Your task to perform on an android device: uninstall "Move to iOS" Image 0: 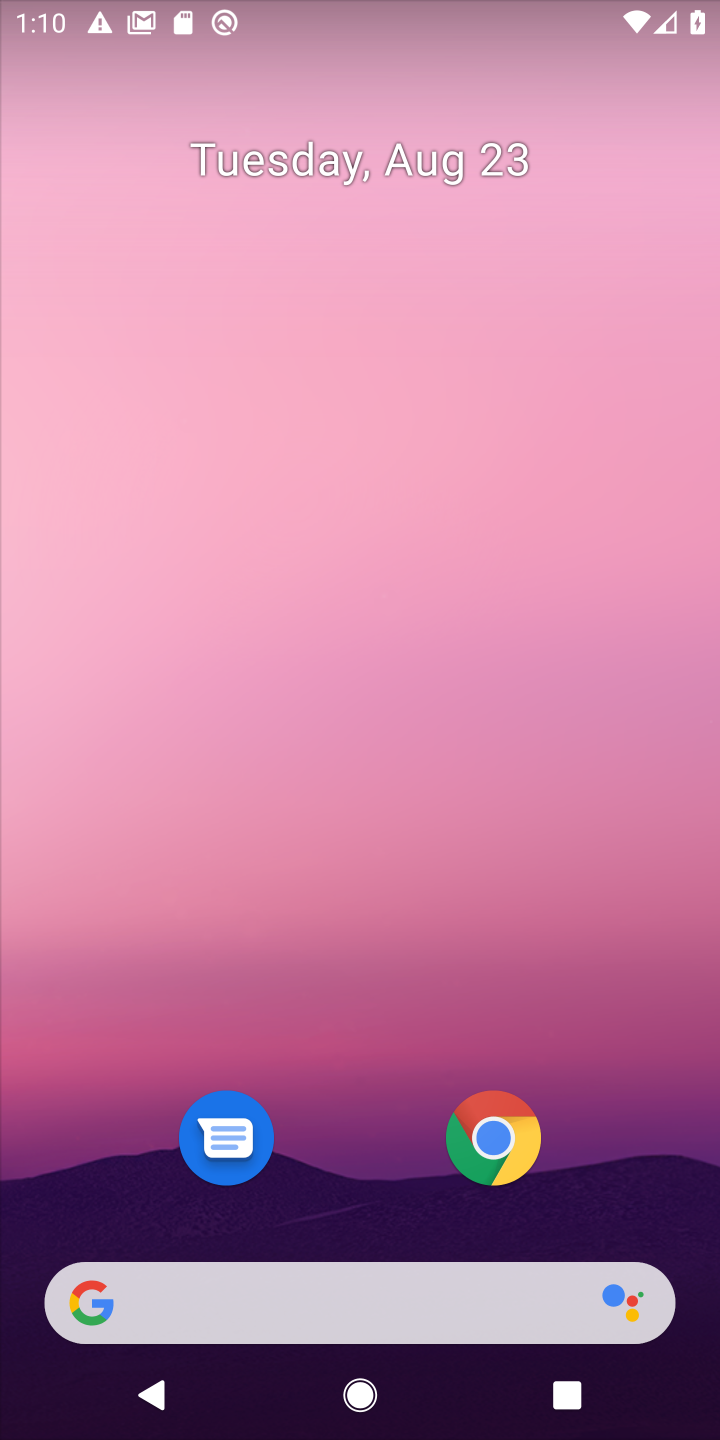
Step 0: drag from (324, 1302) to (402, 34)
Your task to perform on an android device: uninstall "Move to iOS" Image 1: 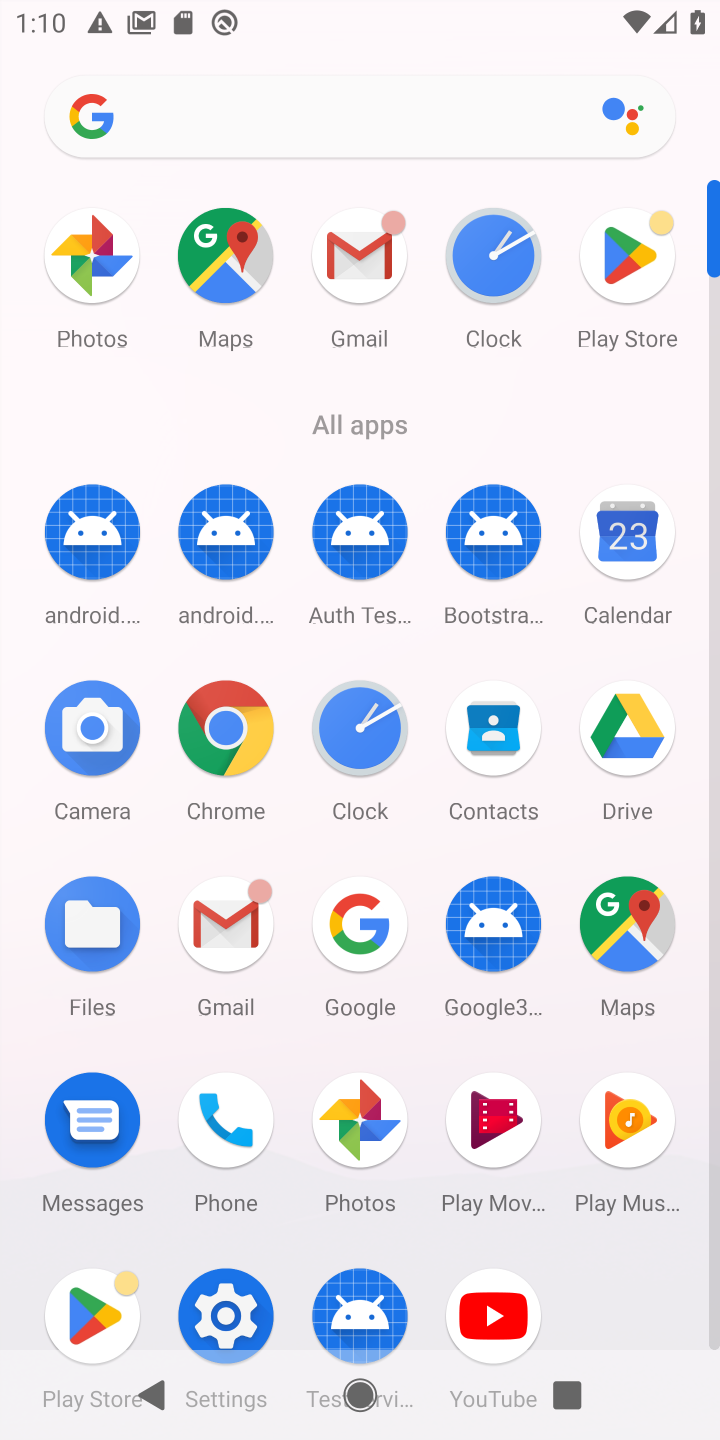
Step 1: click (650, 243)
Your task to perform on an android device: uninstall "Move to iOS" Image 2: 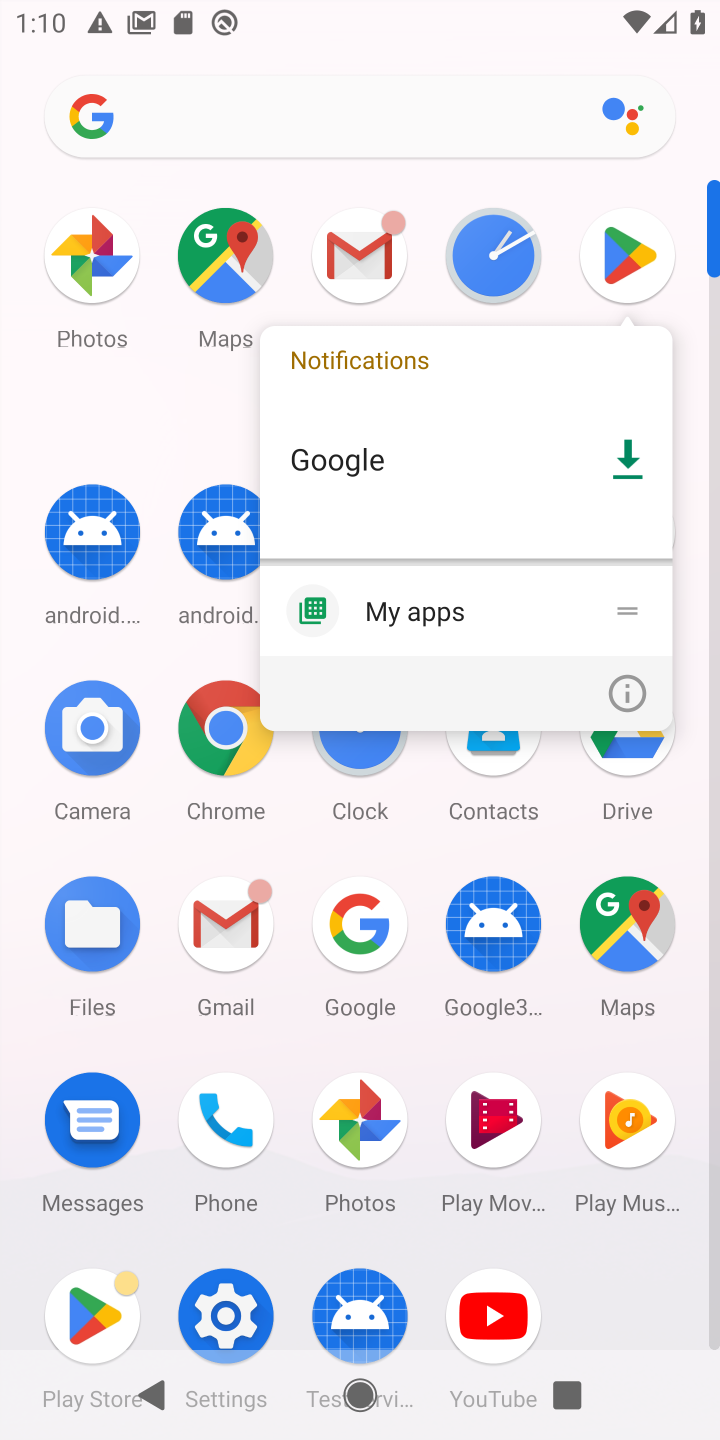
Step 2: click (620, 692)
Your task to perform on an android device: uninstall "Move to iOS" Image 3: 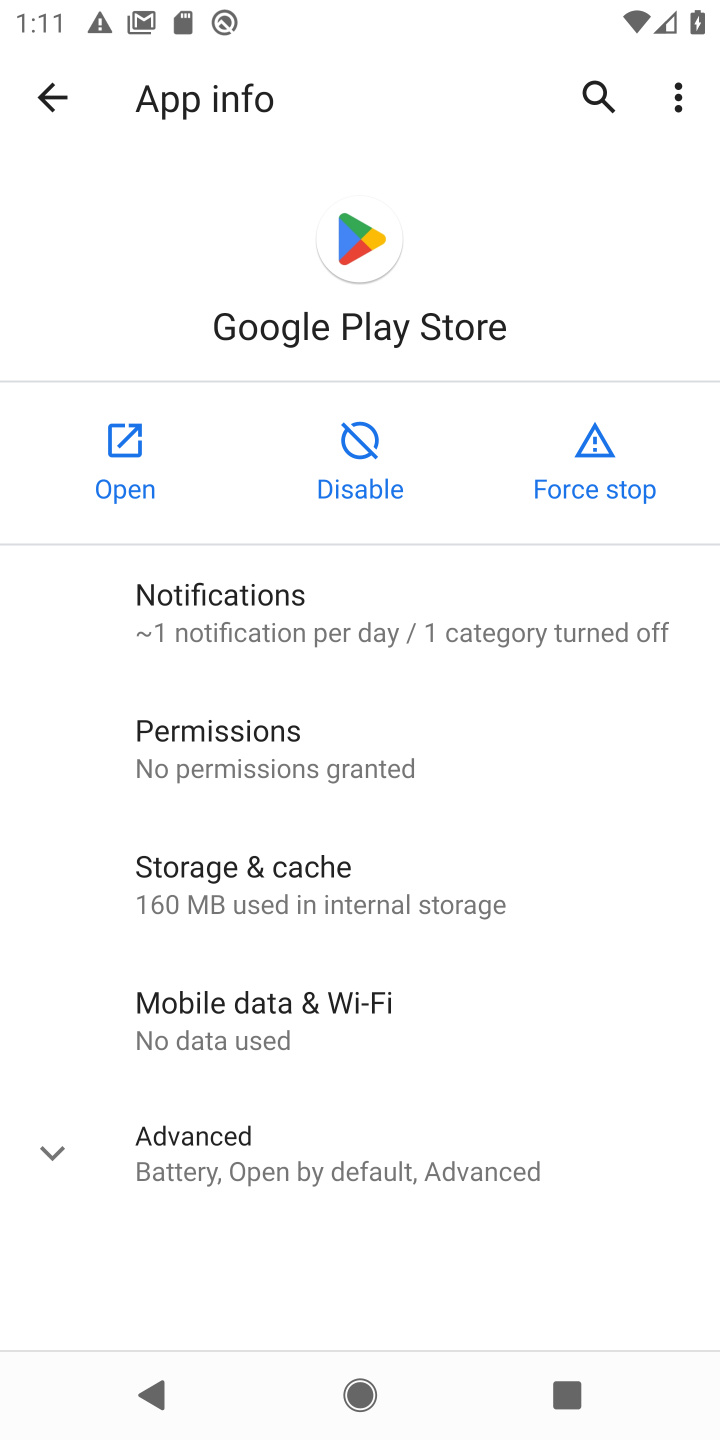
Step 3: press back button
Your task to perform on an android device: uninstall "Move to iOS" Image 4: 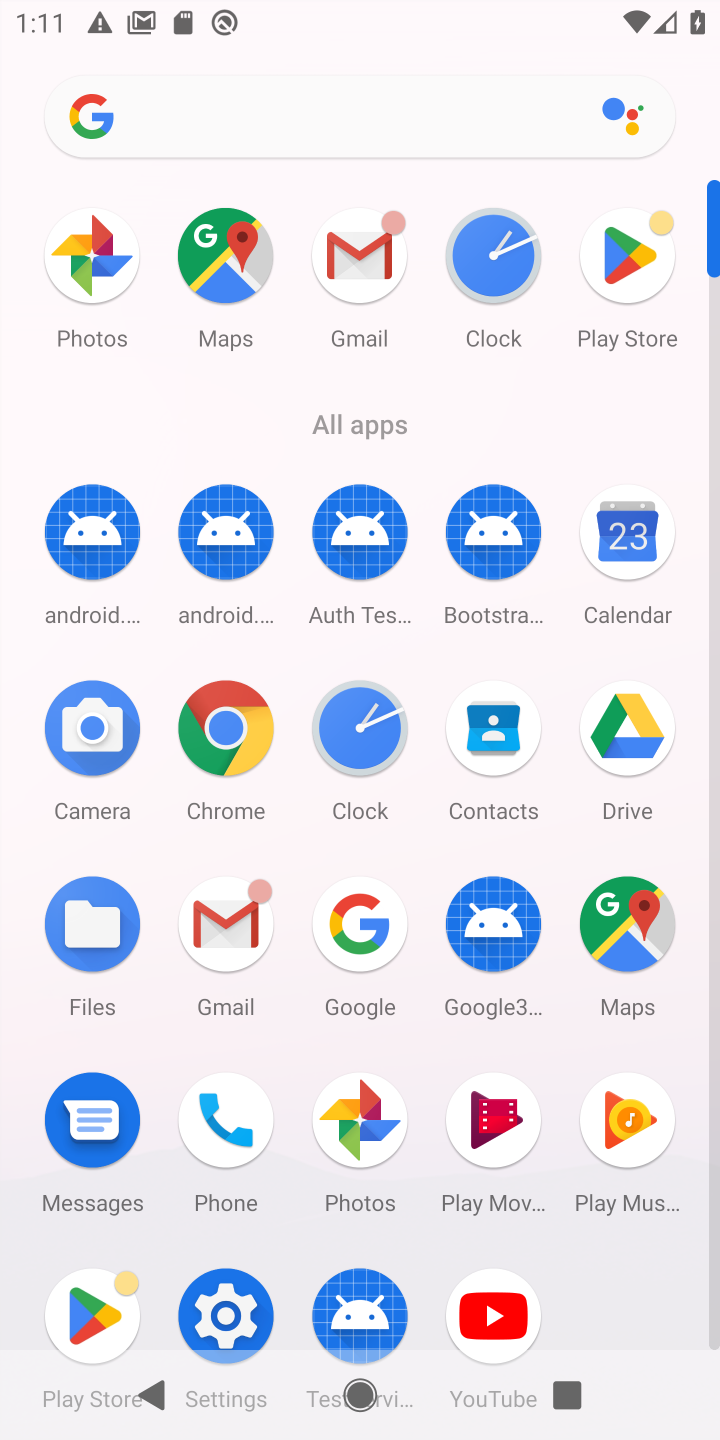
Step 4: click (643, 270)
Your task to perform on an android device: uninstall "Move to iOS" Image 5: 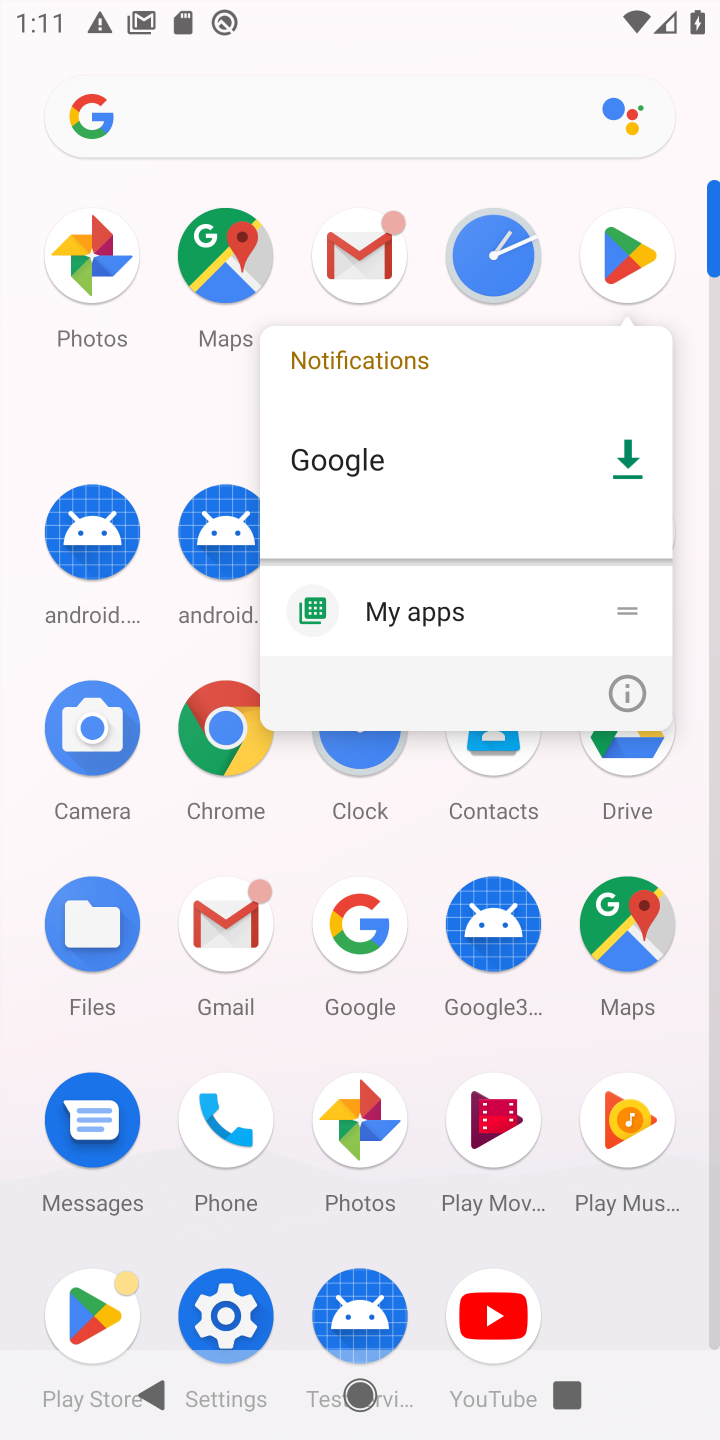
Step 5: click (643, 268)
Your task to perform on an android device: uninstall "Move to iOS" Image 6: 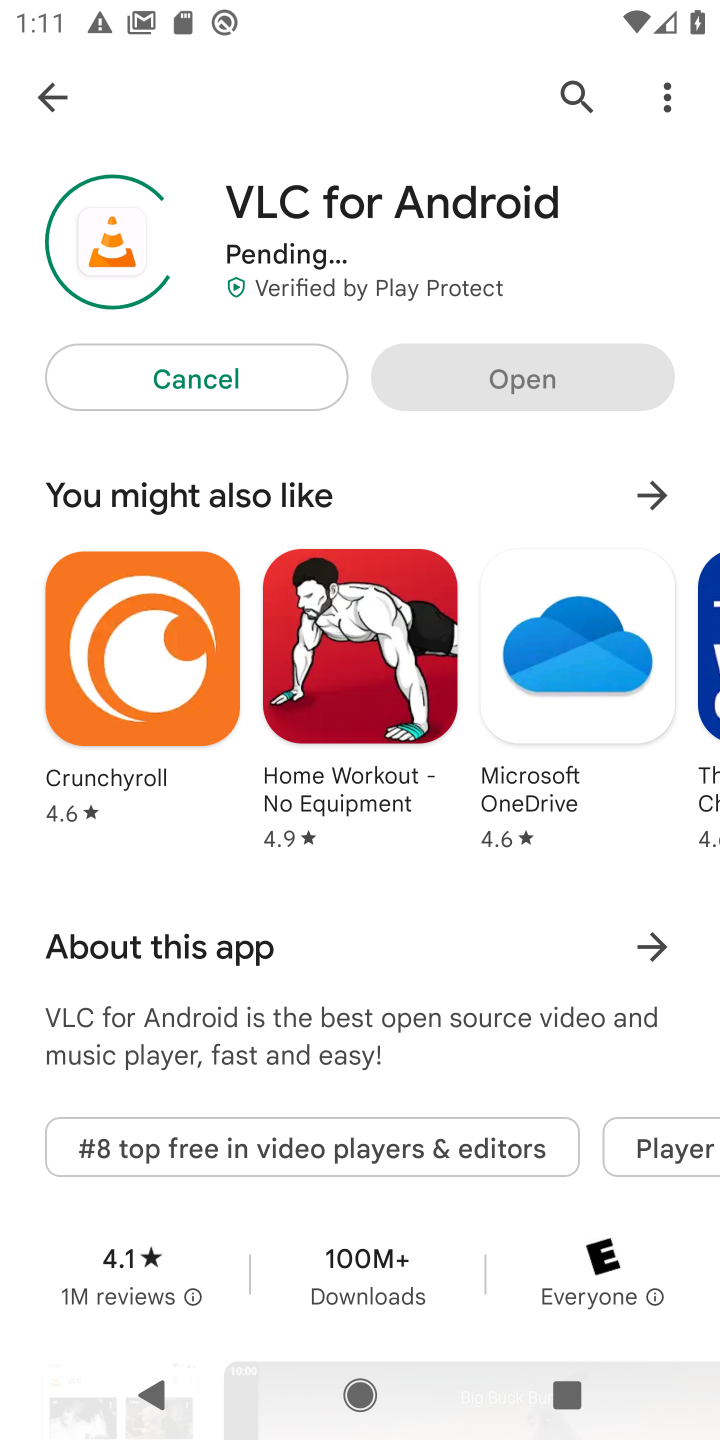
Step 6: press back button
Your task to perform on an android device: uninstall "Move to iOS" Image 7: 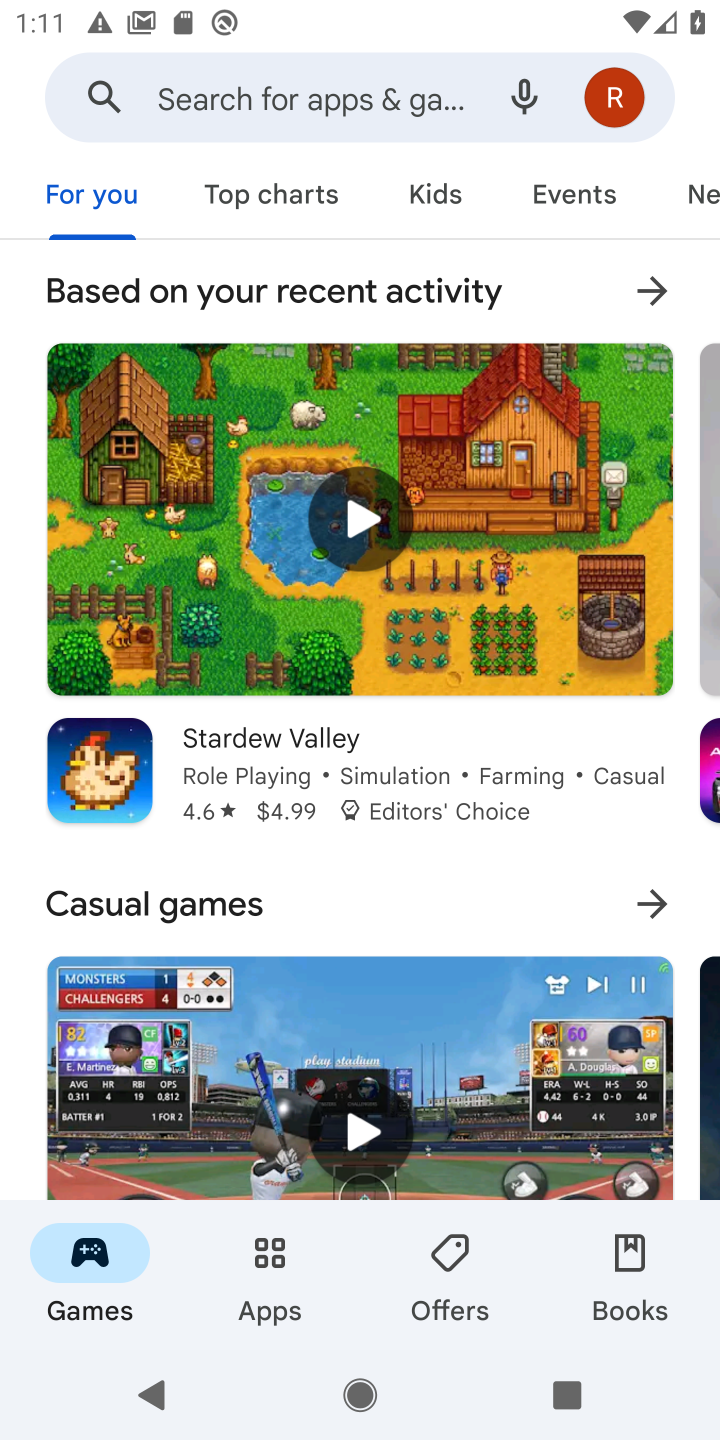
Step 7: click (248, 1269)
Your task to perform on an android device: uninstall "Move to iOS" Image 8: 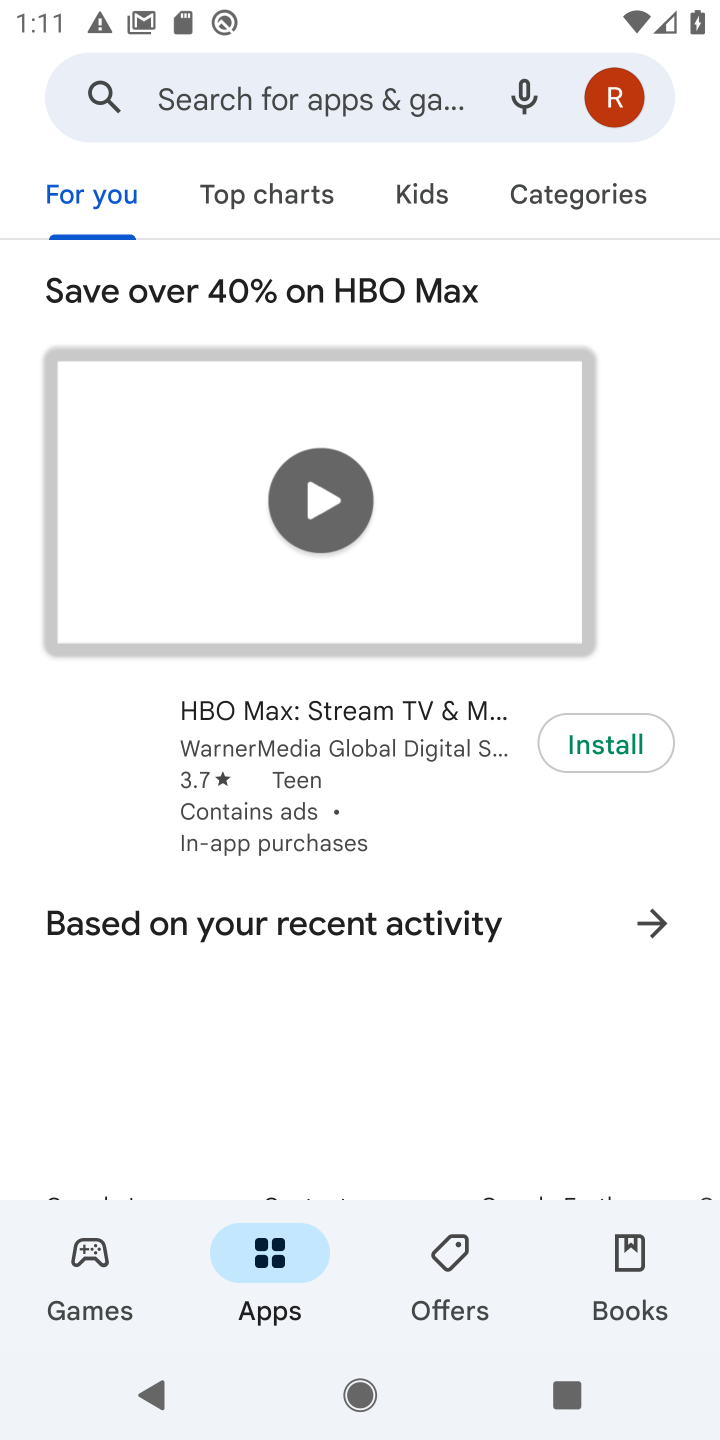
Step 8: click (376, 101)
Your task to perform on an android device: uninstall "Move to iOS" Image 9: 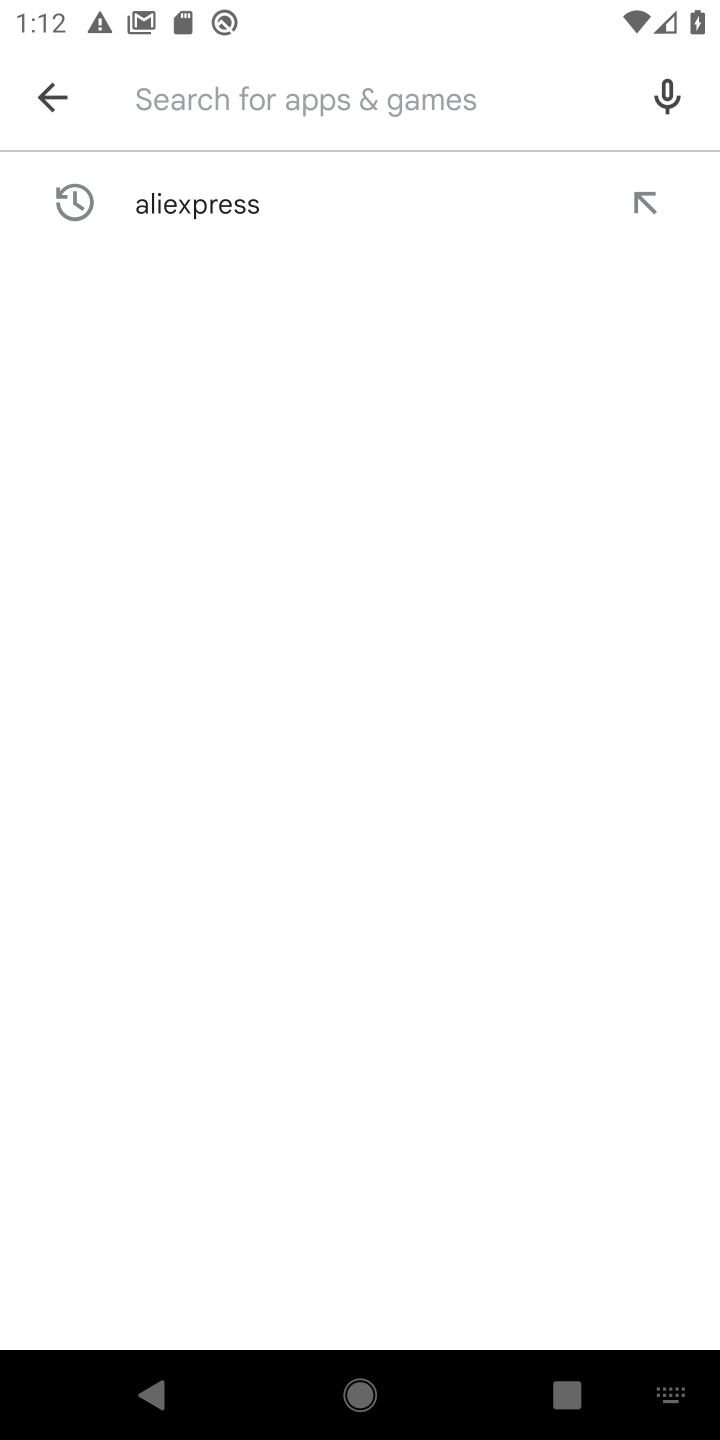
Step 9: type "Move to iOS"
Your task to perform on an android device: uninstall "Move to iOS" Image 10: 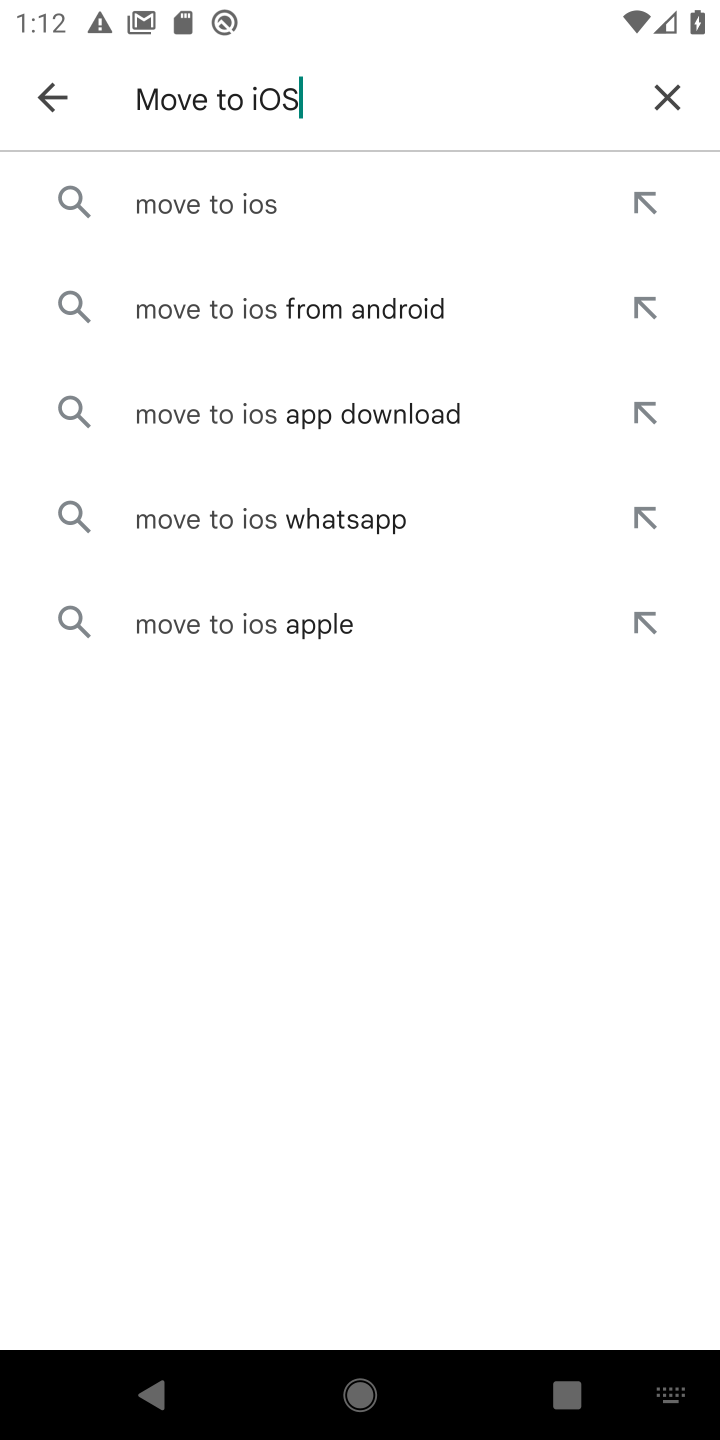
Step 10: click (266, 211)
Your task to perform on an android device: uninstall "Move to iOS" Image 11: 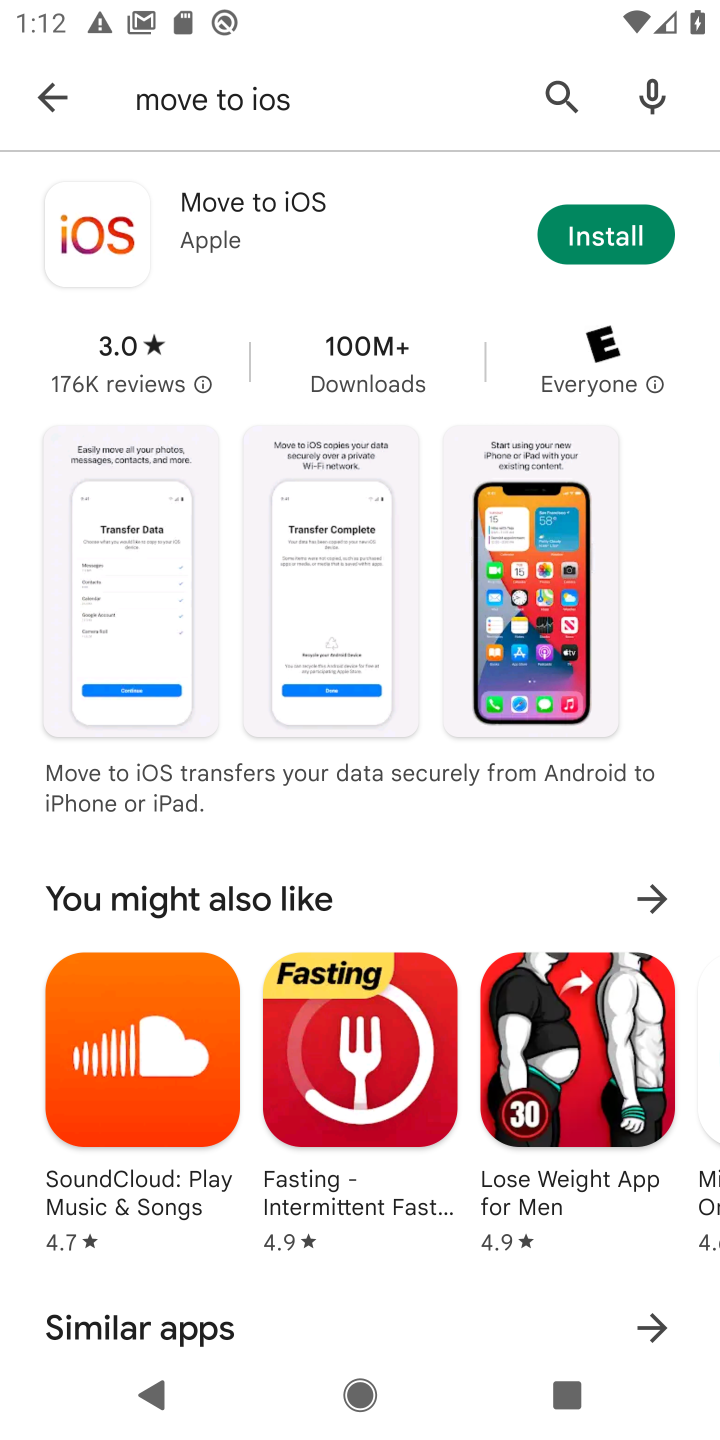
Step 11: click (614, 247)
Your task to perform on an android device: uninstall "Move to iOS" Image 12: 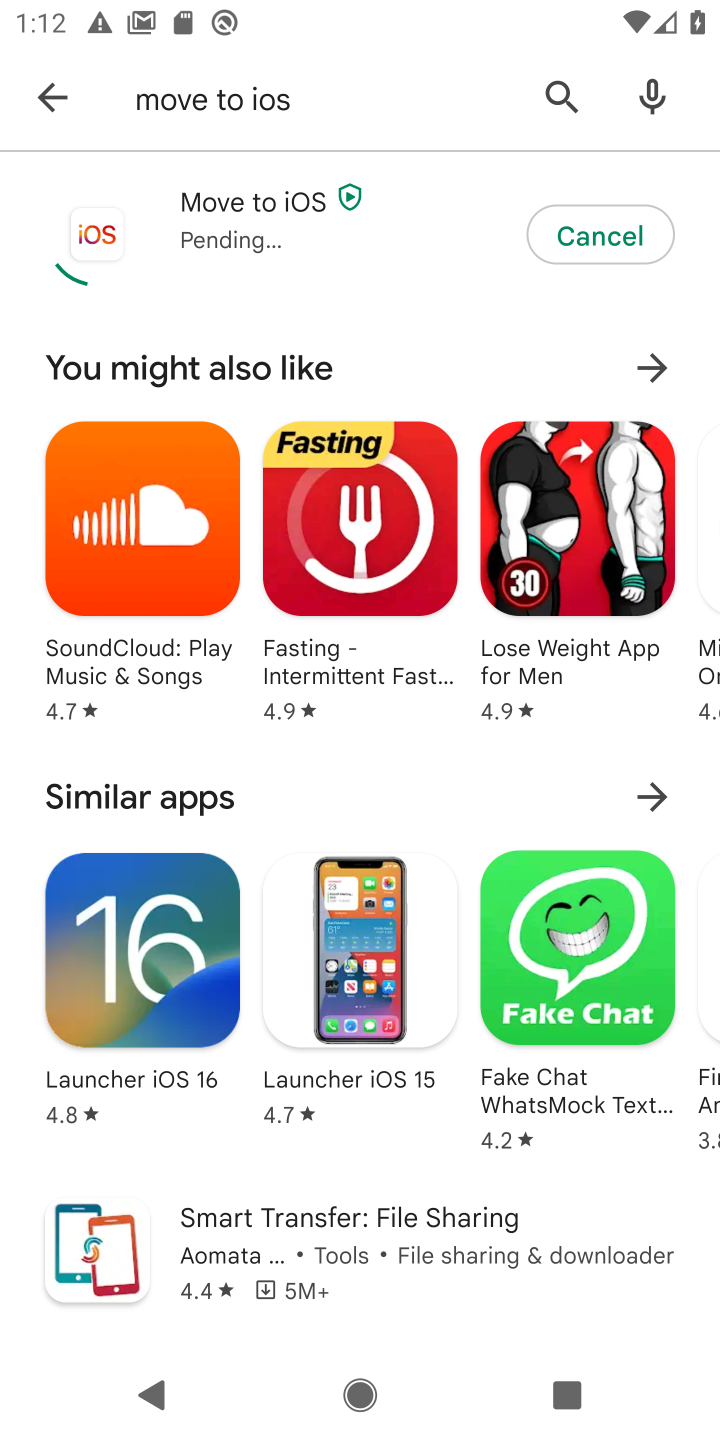
Step 12: click (45, 92)
Your task to perform on an android device: uninstall "Move to iOS" Image 13: 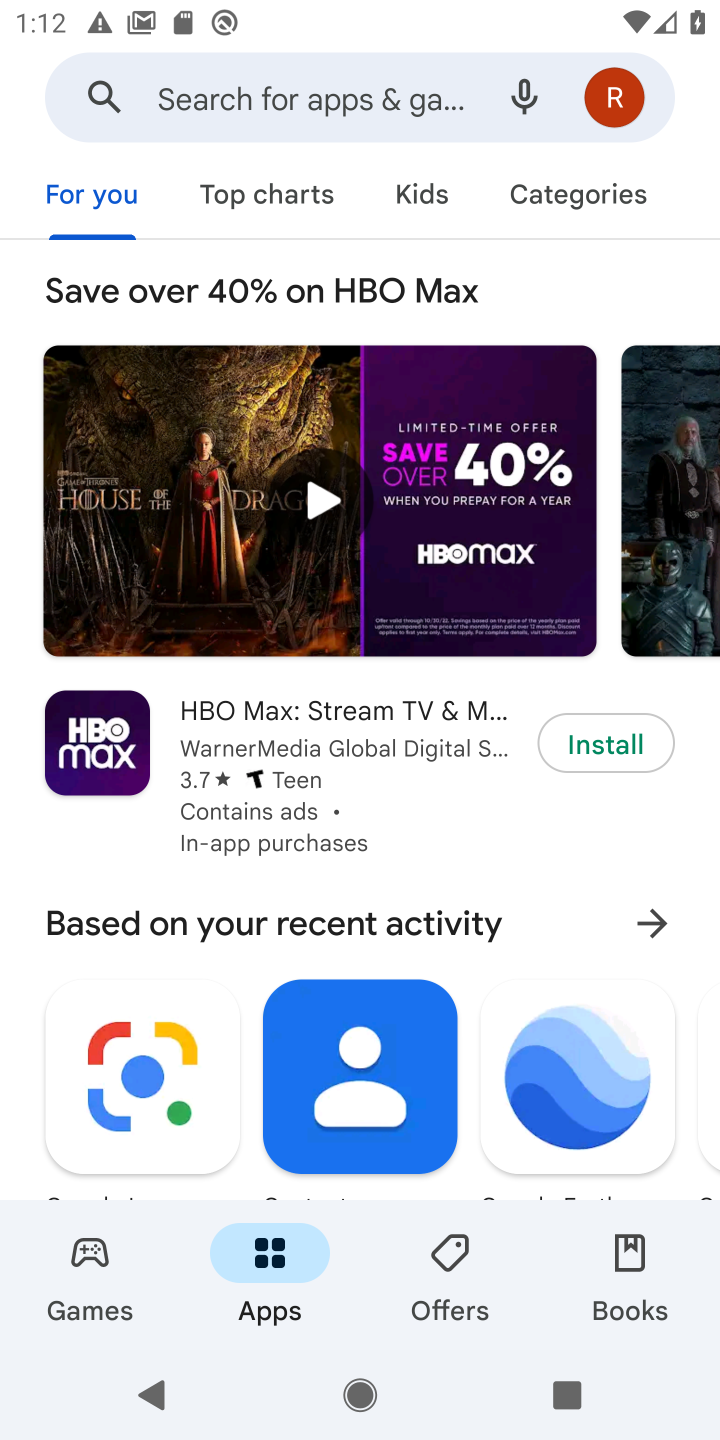
Step 13: task complete